Your task to perform on an android device: show emergency info Image 0: 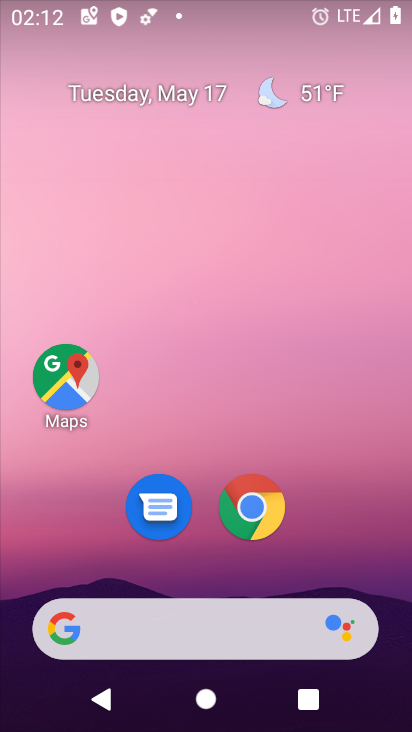
Step 0: drag from (274, 543) to (346, 112)
Your task to perform on an android device: show emergency info Image 1: 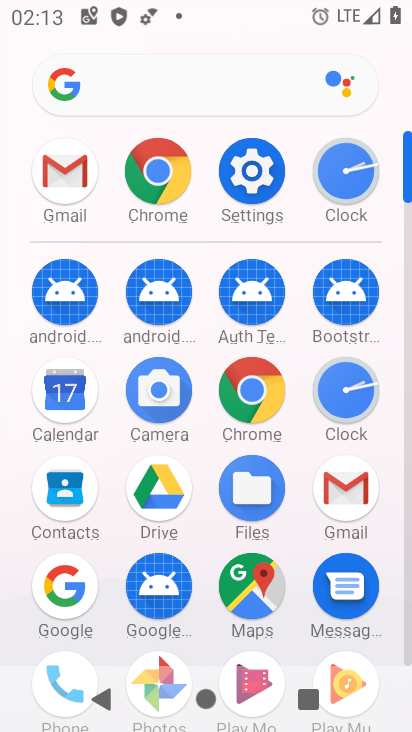
Step 1: click (251, 188)
Your task to perform on an android device: show emergency info Image 2: 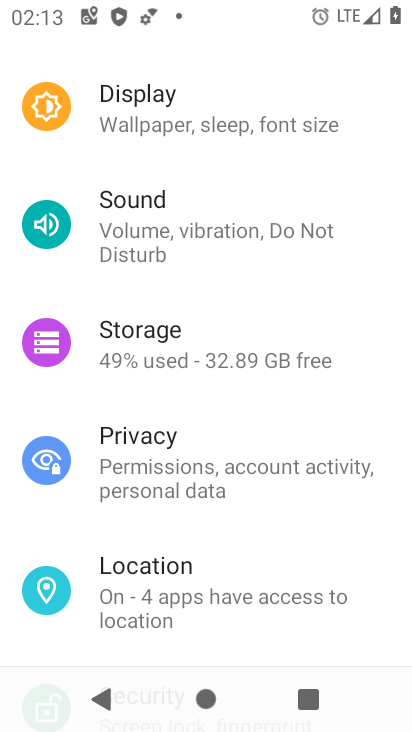
Step 2: drag from (160, 531) to (209, 334)
Your task to perform on an android device: show emergency info Image 3: 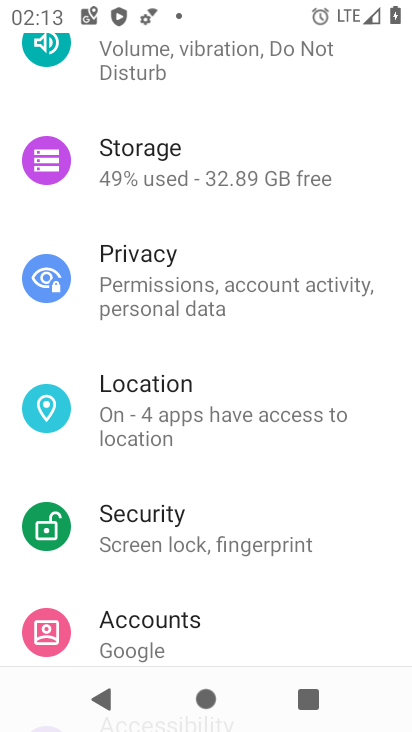
Step 3: drag from (221, 511) to (231, 283)
Your task to perform on an android device: show emergency info Image 4: 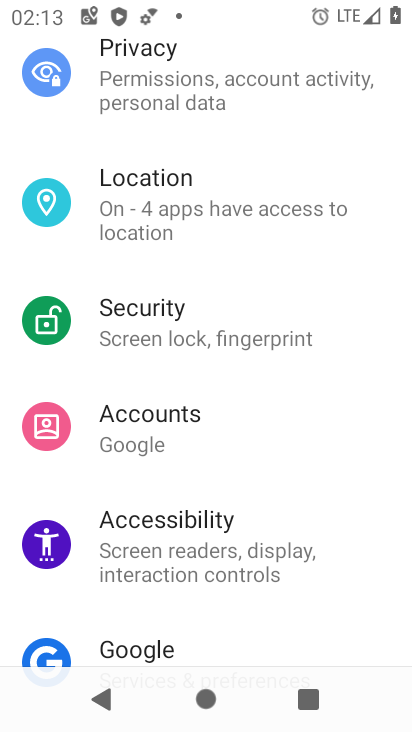
Step 4: drag from (284, 555) to (299, 205)
Your task to perform on an android device: show emergency info Image 5: 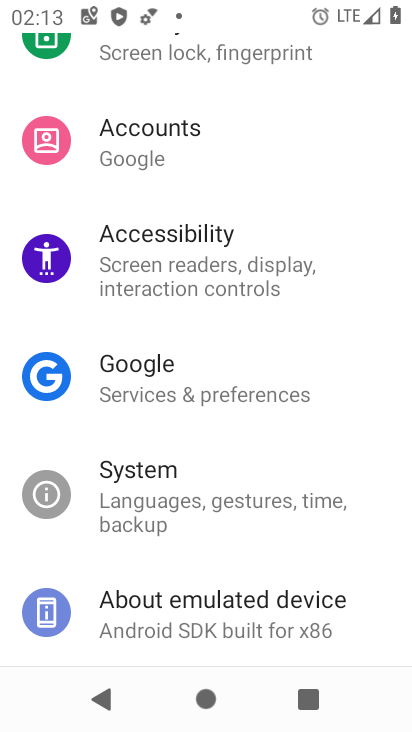
Step 5: click (199, 591)
Your task to perform on an android device: show emergency info Image 6: 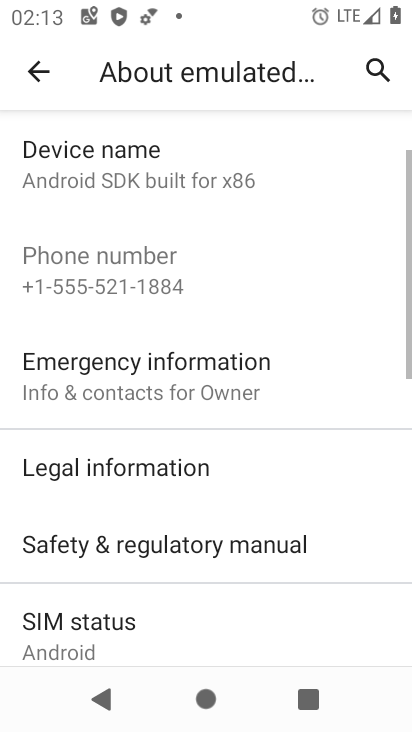
Step 6: click (216, 354)
Your task to perform on an android device: show emergency info Image 7: 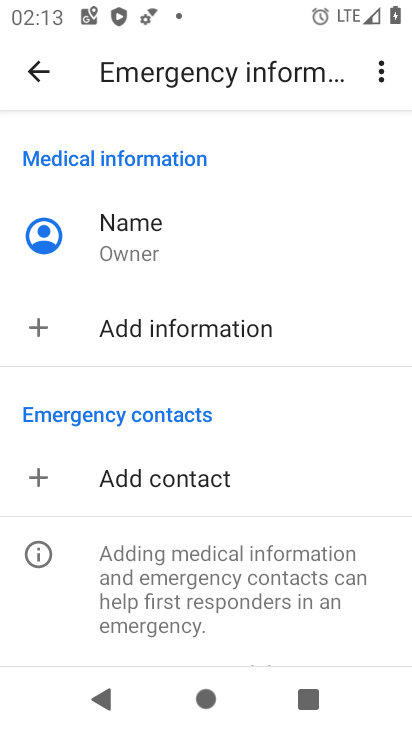
Step 7: task complete